Your task to perform on an android device: Open Google Chrome Image 0: 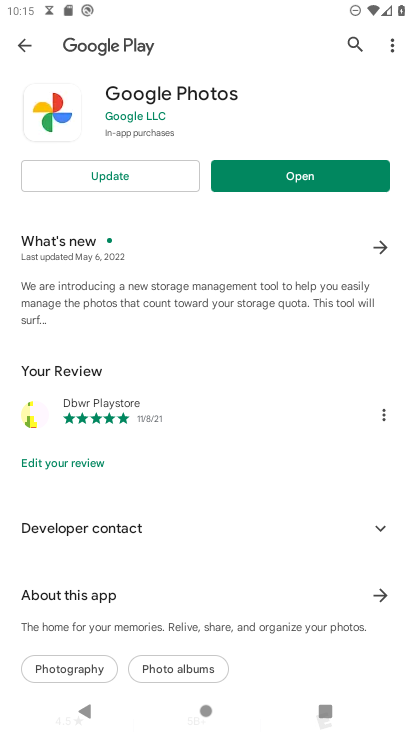
Step 0: press home button
Your task to perform on an android device: Open Google Chrome Image 1: 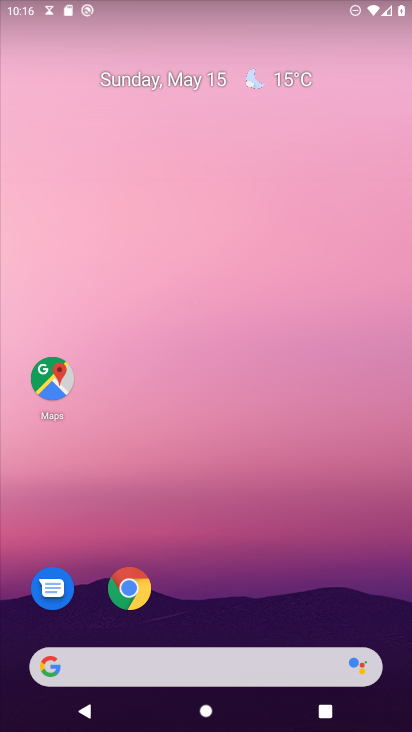
Step 1: click (132, 583)
Your task to perform on an android device: Open Google Chrome Image 2: 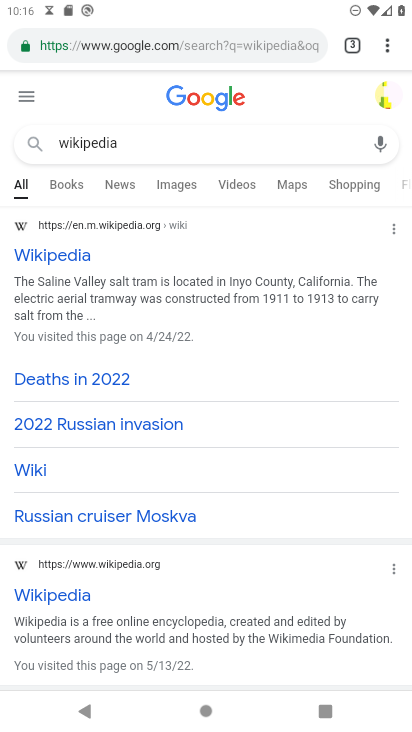
Step 2: click (386, 55)
Your task to perform on an android device: Open Google Chrome Image 3: 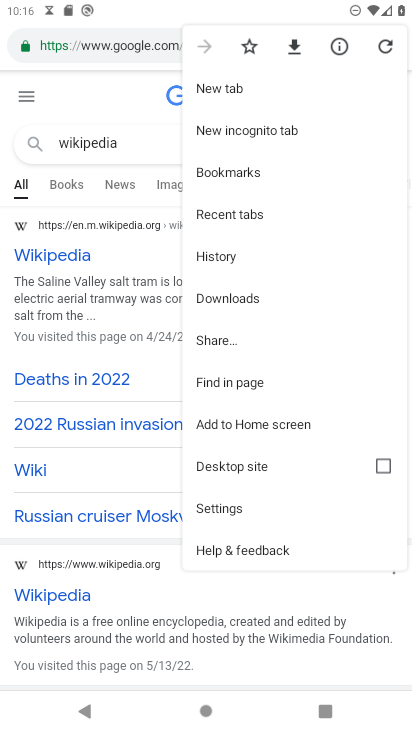
Step 3: click (278, 96)
Your task to perform on an android device: Open Google Chrome Image 4: 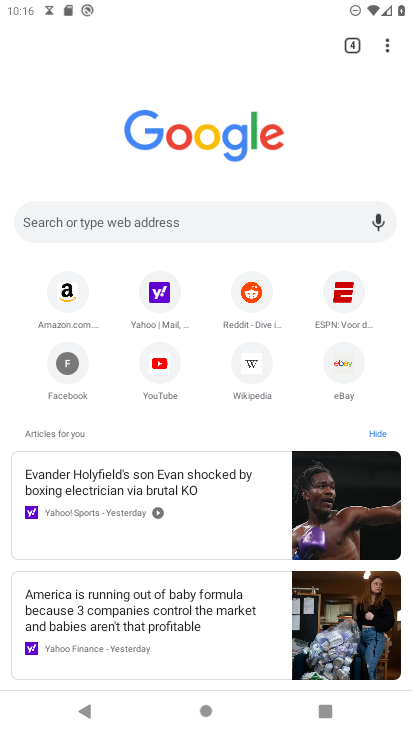
Step 4: task complete